Your task to perform on an android device: delete browsing data in the chrome app Image 0: 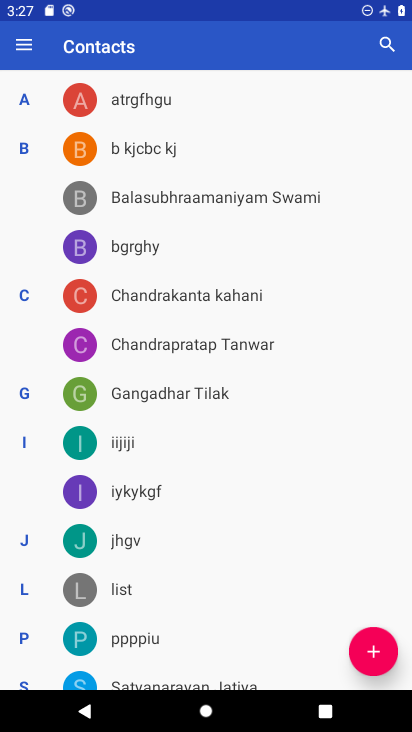
Step 0: press home button
Your task to perform on an android device: delete browsing data in the chrome app Image 1: 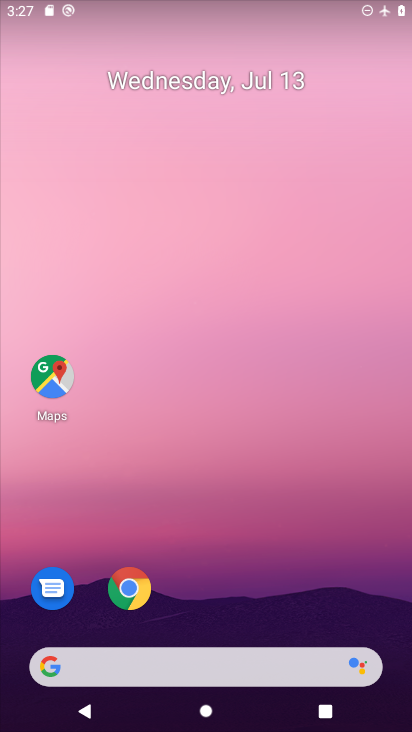
Step 1: drag from (206, 643) to (174, 96)
Your task to perform on an android device: delete browsing data in the chrome app Image 2: 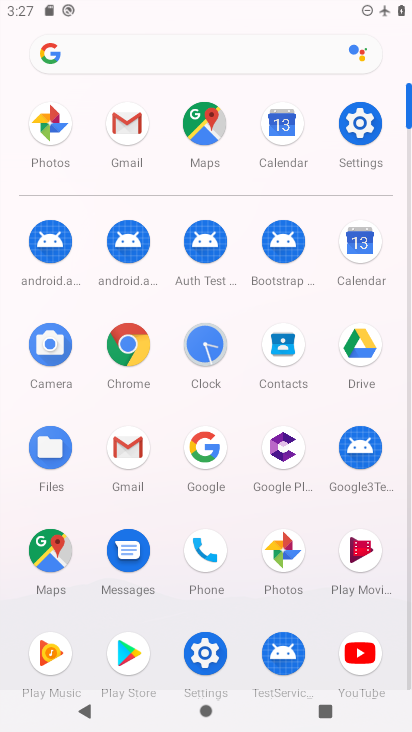
Step 2: click (138, 348)
Your task to perform on an android device: delete browsing data in the chrome app Image 3: 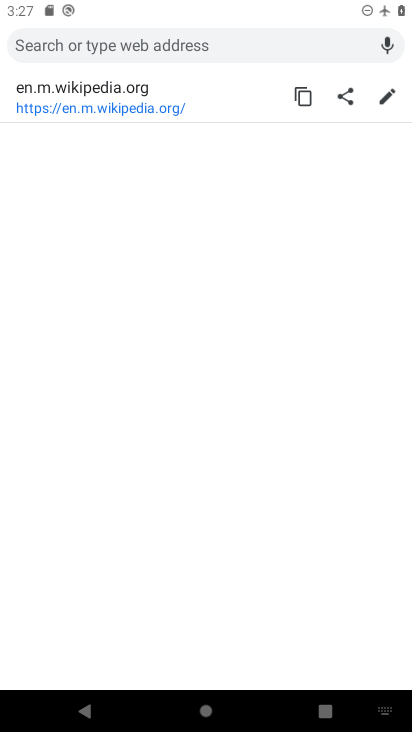
Step 3: press back button
Your task to perform on an android device: delete browsing data in the chrome app Image 4: 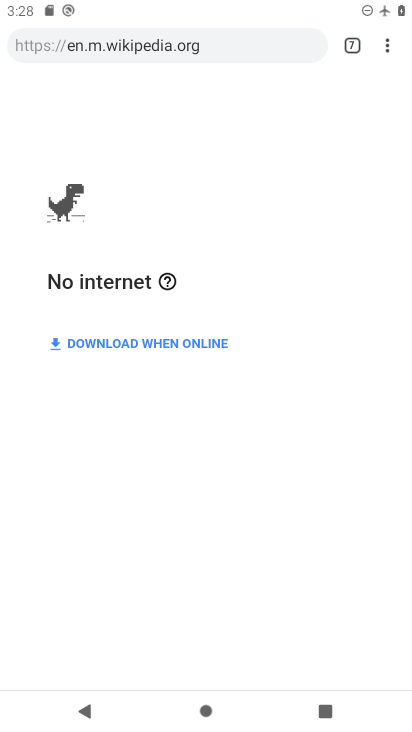
Step 4: click (379, 36)
Your task to perform on an android device: delete browsing data in the chrome app Image 5: 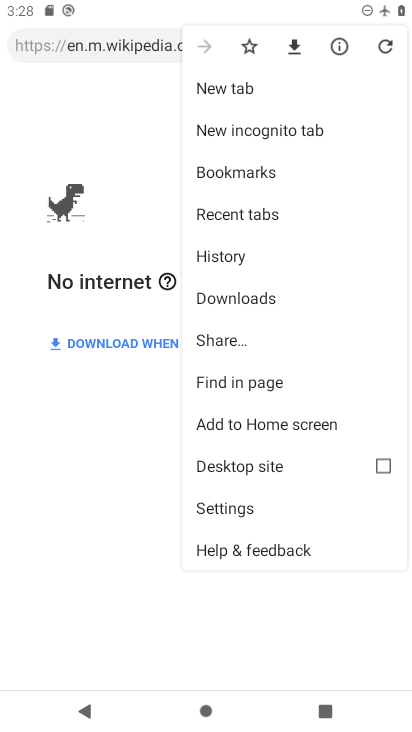
Step 5: click (225, 250)
Your task to perform on an android device: delete browsing data in the chrome app Image 6: 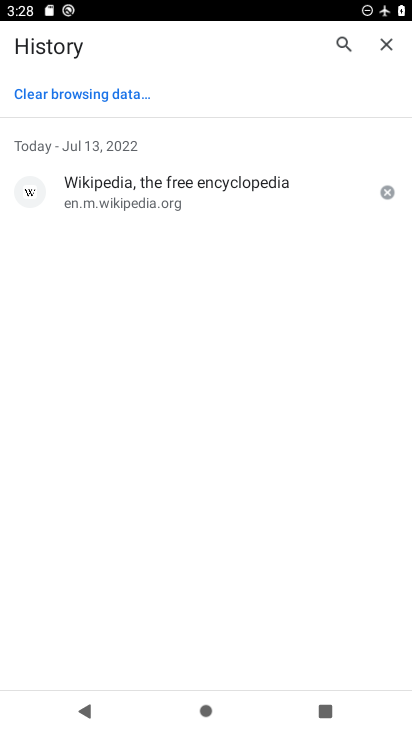
Step 6: click (96, 91)
Your task to perform on an android device: delete browsing data in the chrome app Image 7: 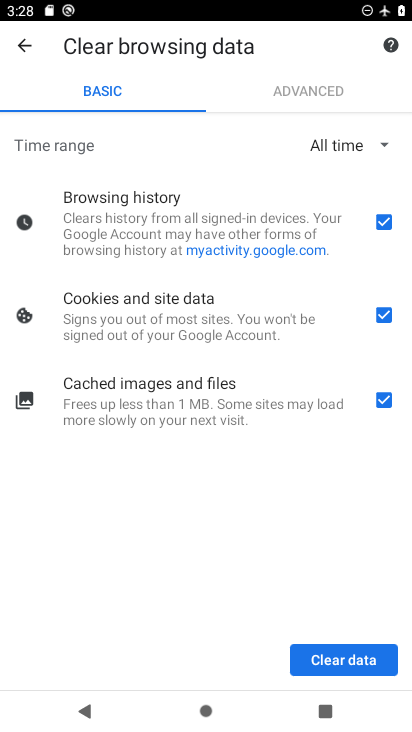
Step 7: click (341, 665)
Your task to perform on an android device: delete browsing data in the chrome app Image 8: 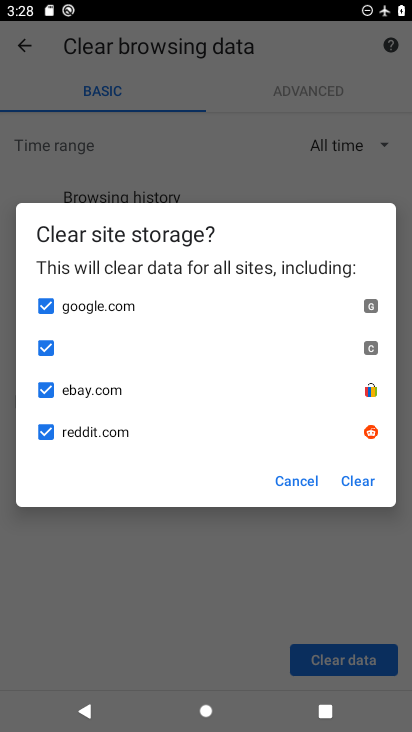
Step 8: click (364, 480)
Your task to perform on an android device: delete browsing data in the chrome app Image 9: 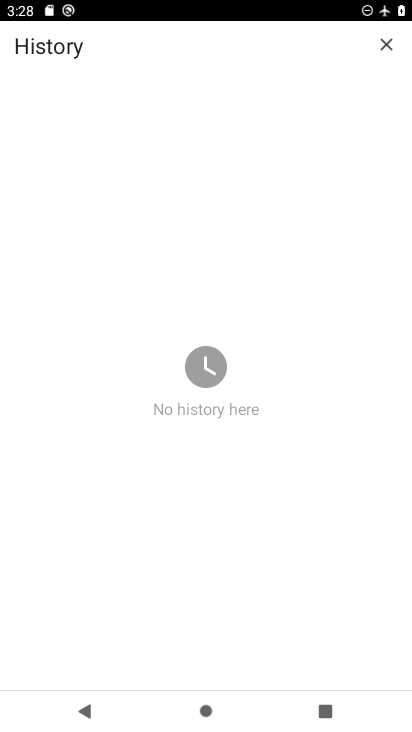
Step 9: task complete